Your task to perform on an android device: Go to location settings Image 0: 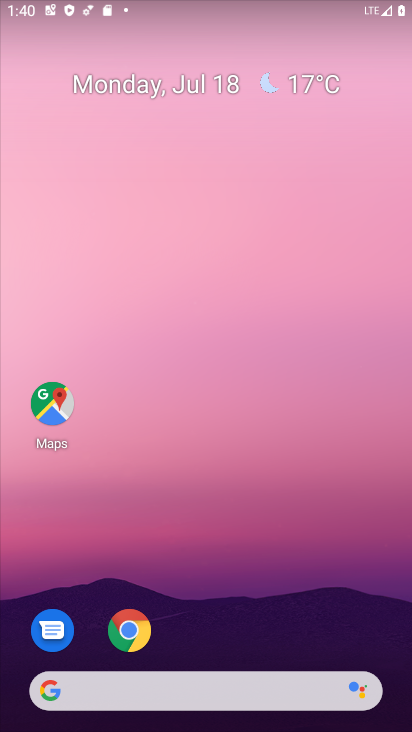
Step 0: drag from (262, 589) to (216, 47)
Your task to perform on an android device: Go to location settings Image 1: 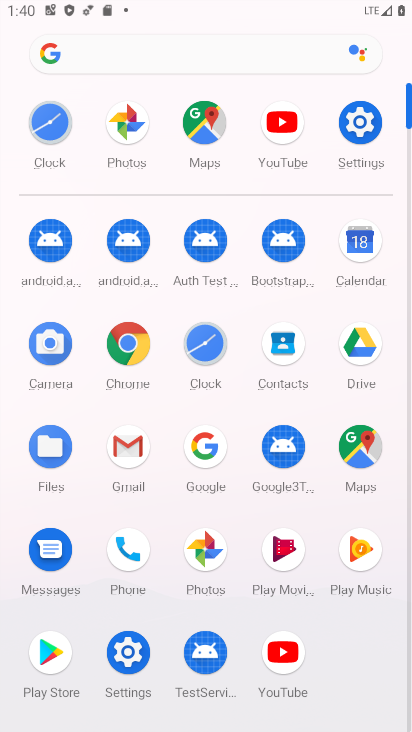
Step 1: click (373, 127)
Your task to perform on an android device: Go to location settings Image 2: 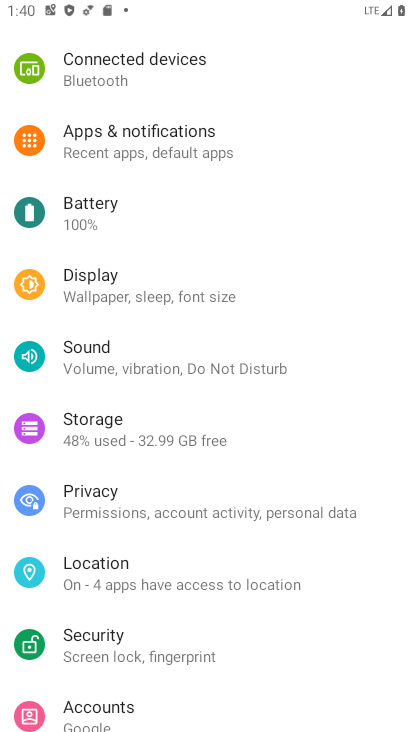
Step 2: click (156, 567)
Your task to perform on an android device: Go to location settings Image 3: 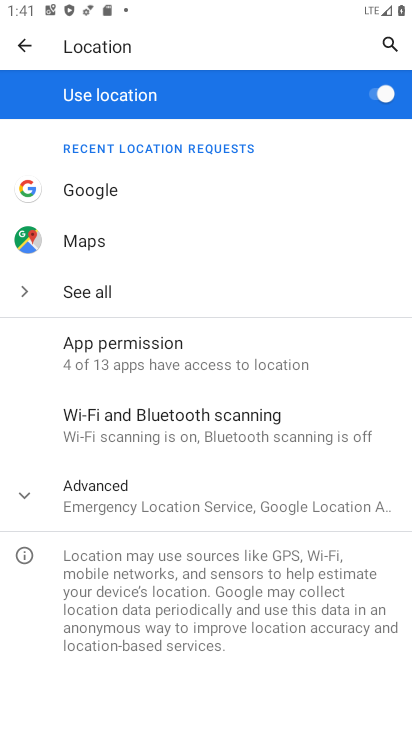
Step 3: task complete